Your task to perform on an android device: make emails show in primary in the gmail app Image 0: 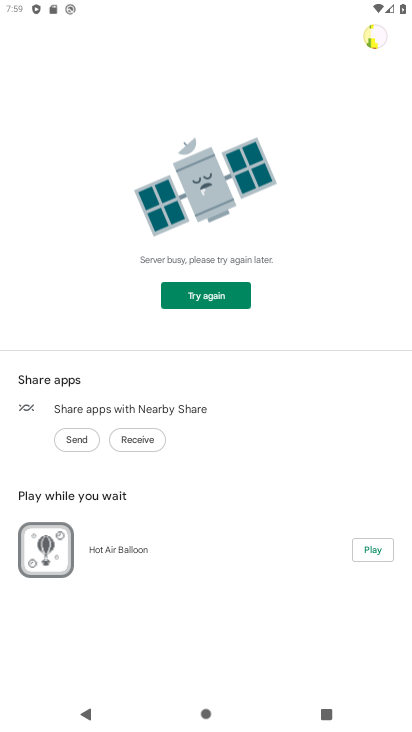
Step 0: press home button
Your task to perform on an android device: make emails show in primary in the gmail app Image 1: 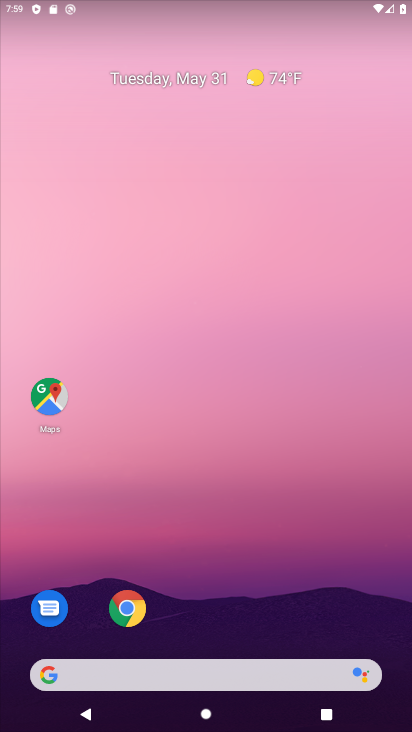
Step 1: drag from (208, 639) to (89, 53)
Your task to perform on an android device: make emails show in primary in the gmail app Image 2: 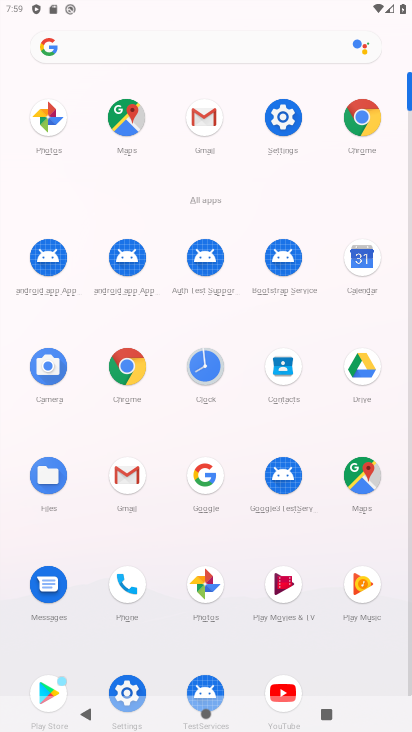
Step 2: click (126, 473)
Your task to perform on an android device: make emails show in primary in the gmail app Image 3: 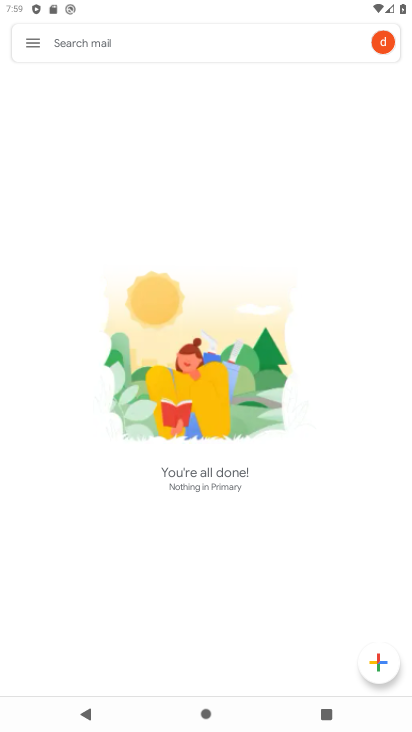
Step 3: click (14, 32)
Your task to perform on an android device: make emails show in primary in the gmail app Image 4: 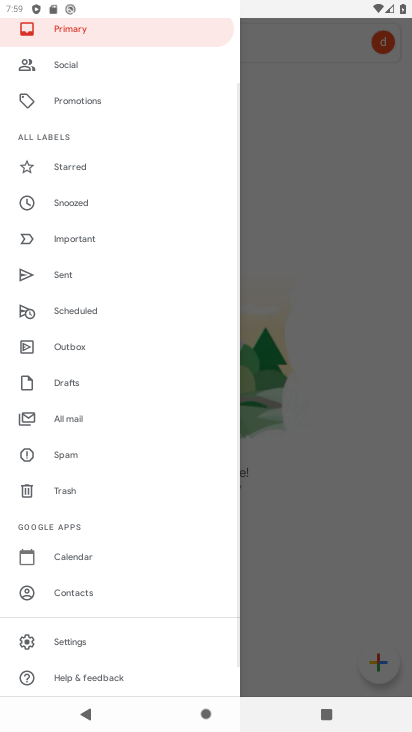
Step 4: click (78, 40)
Your task to perform on an android device: make emails show in primary in the gmail app Image 5: 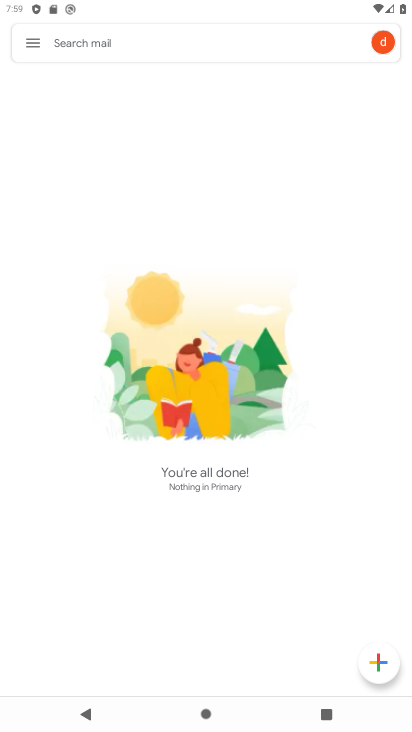
Step 5: task complete